Your task to perform on an android device: turn off notifications settings in the gmail app Image 0: 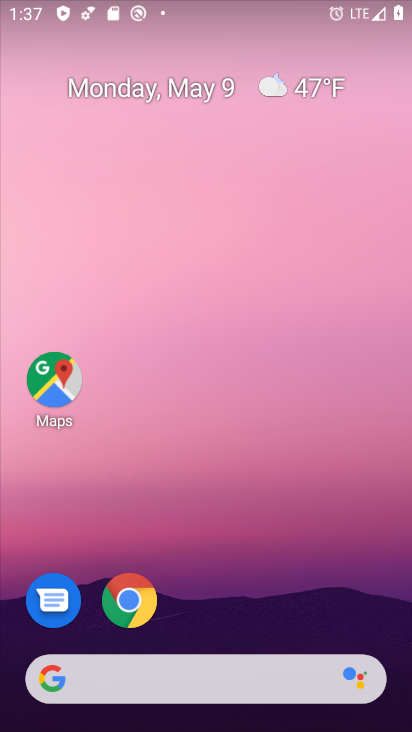
Step 0: drag from (207, 661) to (220, 157)
Your task to perform on an android device: turn off notifications settings in the gmail app Image 1: 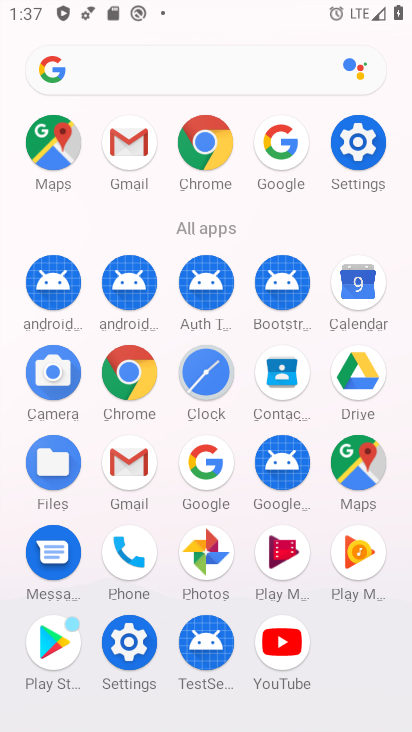
Step 1: click (123, 475)
Your task to perform on an android device: turn off notifications settings in the gmail app Image 2: 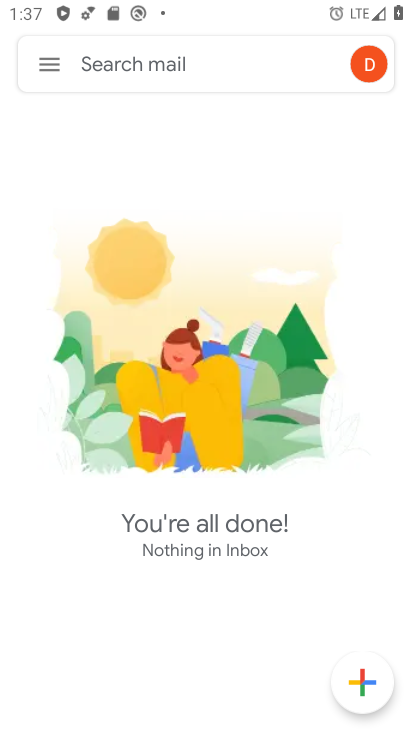
Step 2: click (52, 69)
Your task to perform on an android device: turn off notifications settings in the gmail app Image 3: 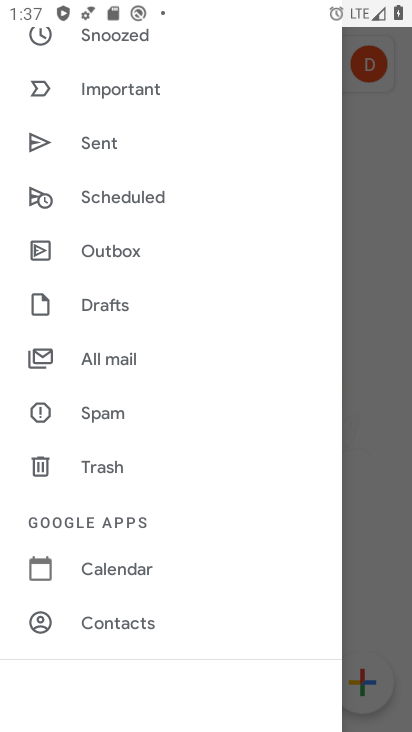
Step 3: drag from (108, 581) to (119, 312)
Your task to perform on an android device: turn off notifications settings in the gmail app Image 4: 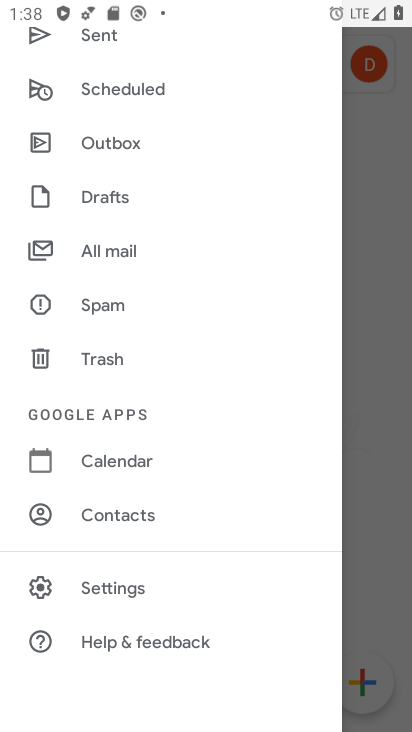
Step 4: click (110, 592)
Your task to perform on an android device: turn off notifications settings in the gmail app Image 5: 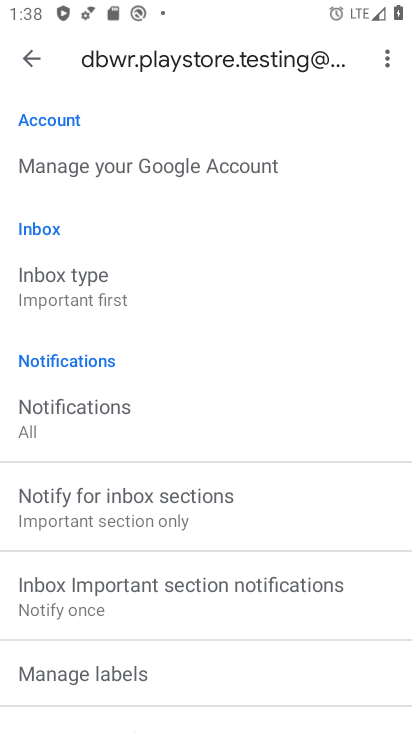
Step 5: drag from (90, 692) to (124, 490)
Your task to perform on an android device: turn off notifications settings in the gmail app Image 6: 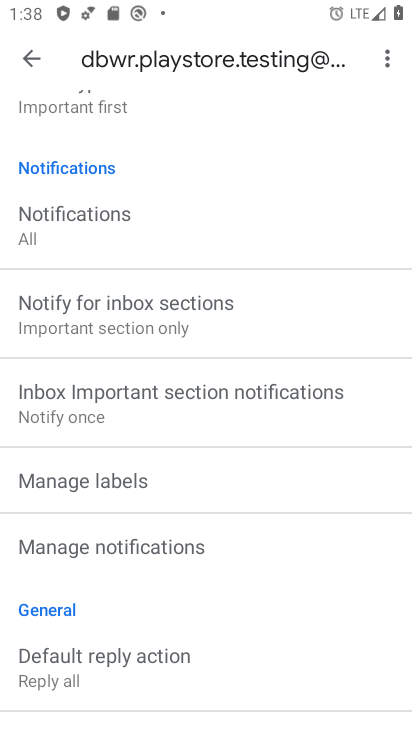
Step 6: click (122, 543)
Your task to perform on an android device: turn off notifications settings in the gmail app Image 7: 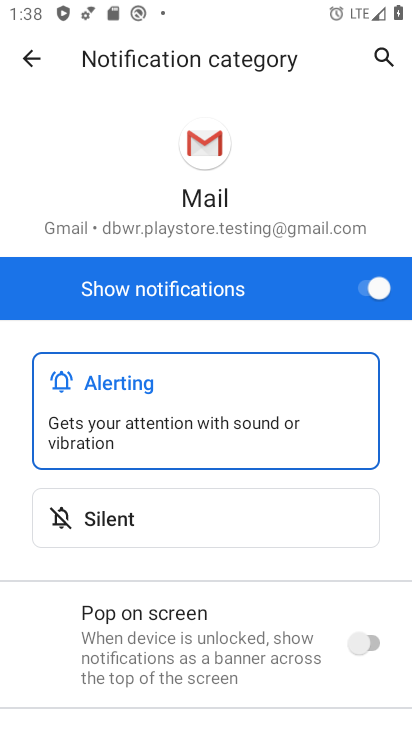
Step 7: click (382, 296)
Your task to perform on an android device: turn off notifications settings in the gmail app Image 8: 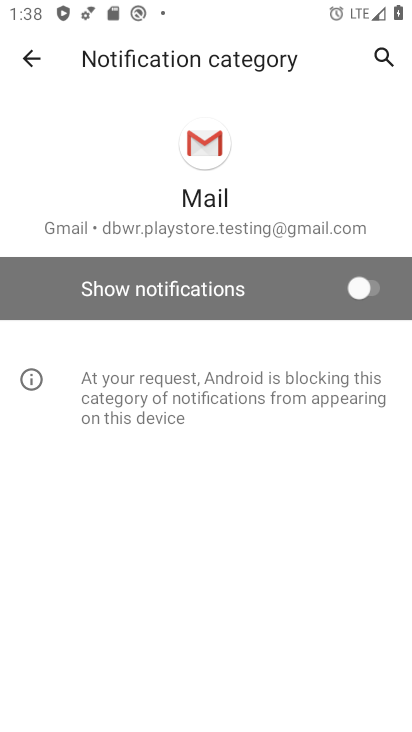
Step 8: task complete